Your task to perform on an android device: Open Google Chrome Image 0: 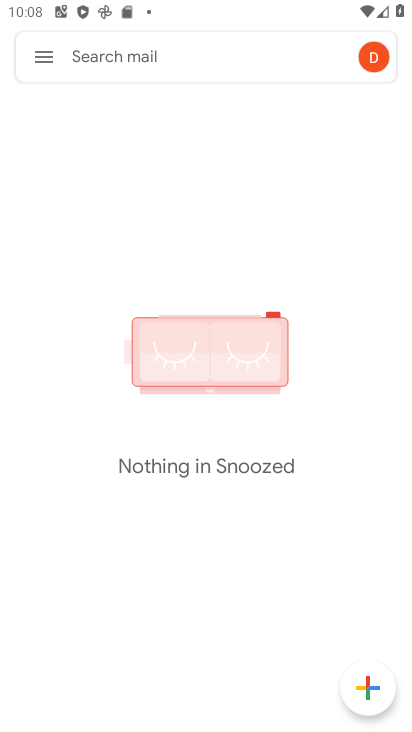
Step 0: press home button
Your task to perform on an android device: Open Google Chrome Image 1: 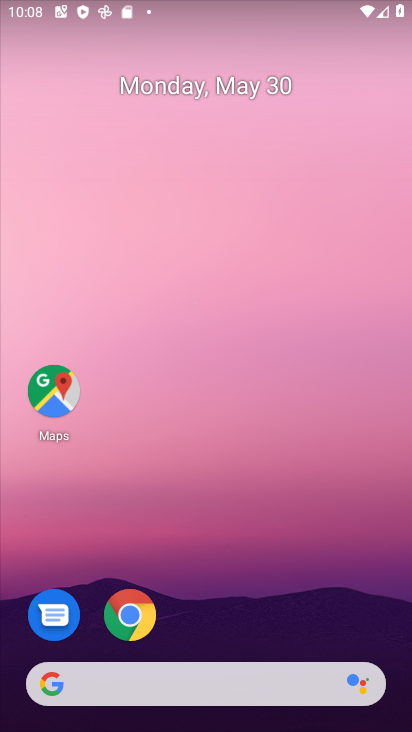
Step 1: click (140, 614)
Your task to perform on an android device: Open Google Chrome Image 2: 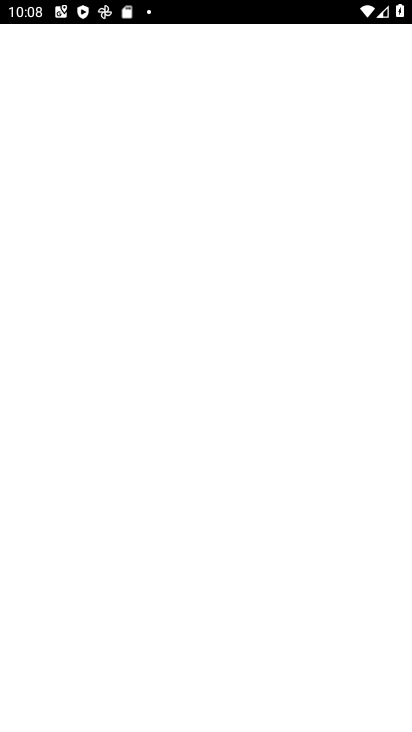
Step 2: task complete